Your task to perform on an android device: open app "Chime – Mobile Banking" (install if not already installed) and enter user name: "bullfrog@inbox.com" and password: "breaker" Image 0: 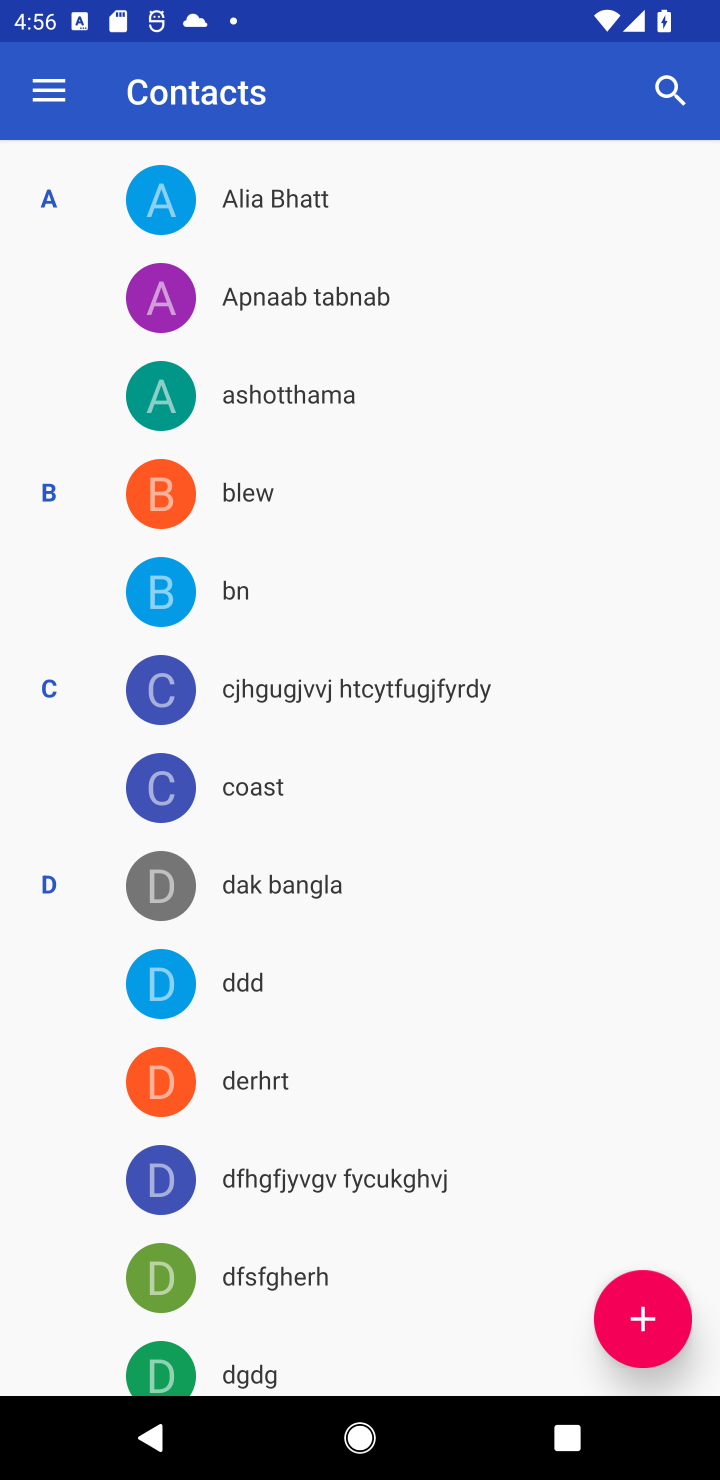
Step 0: press home button
Your task to perform on an android device: open app "Chime – Mobile Banking" (install if not already installed) and enter user name: "bullfrog@inbox.com" and password: "breaker" Image 1: 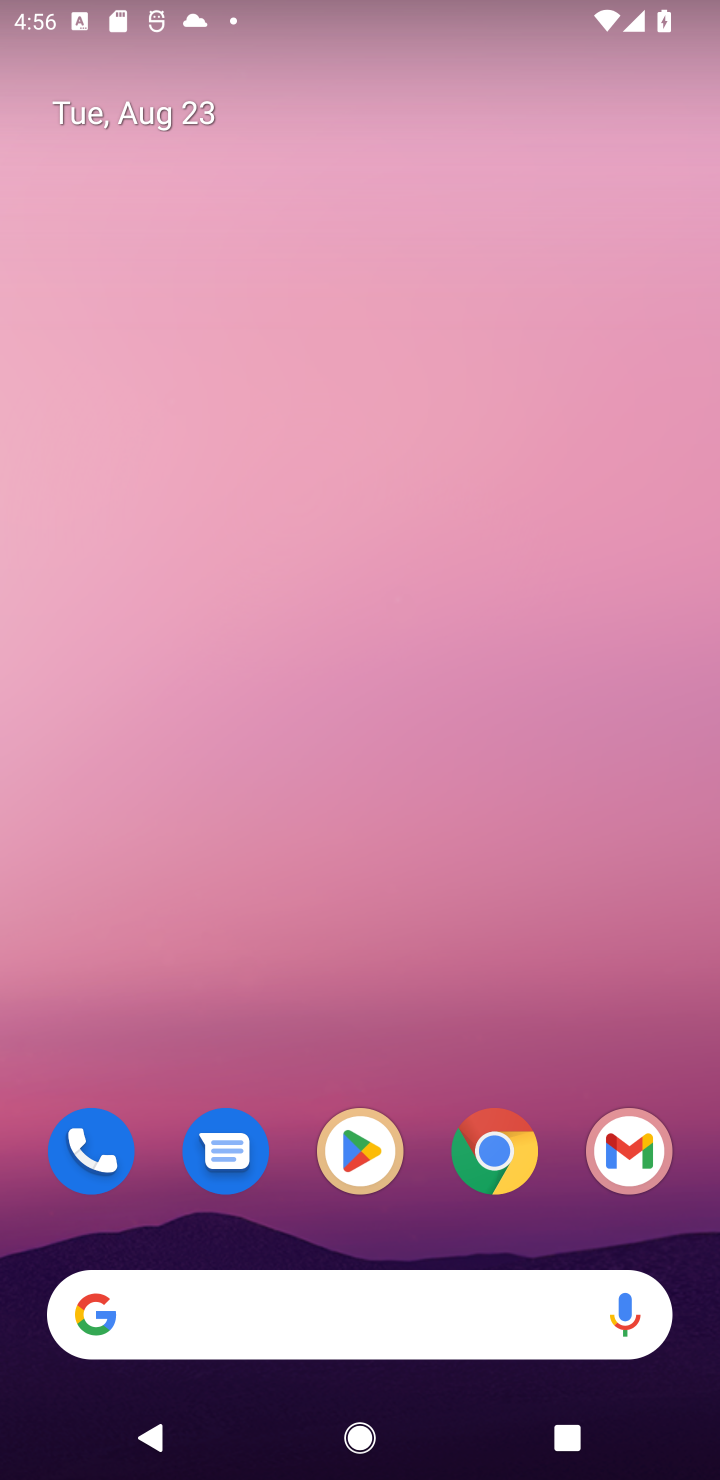
Step 1: click (348, 1150)
Your task to perform on an android device: open app "Chime – Mobile Banking" (install if not already installed) and enter user name: "bullfrog@inbox.com" and password: "breaker" Image 2: 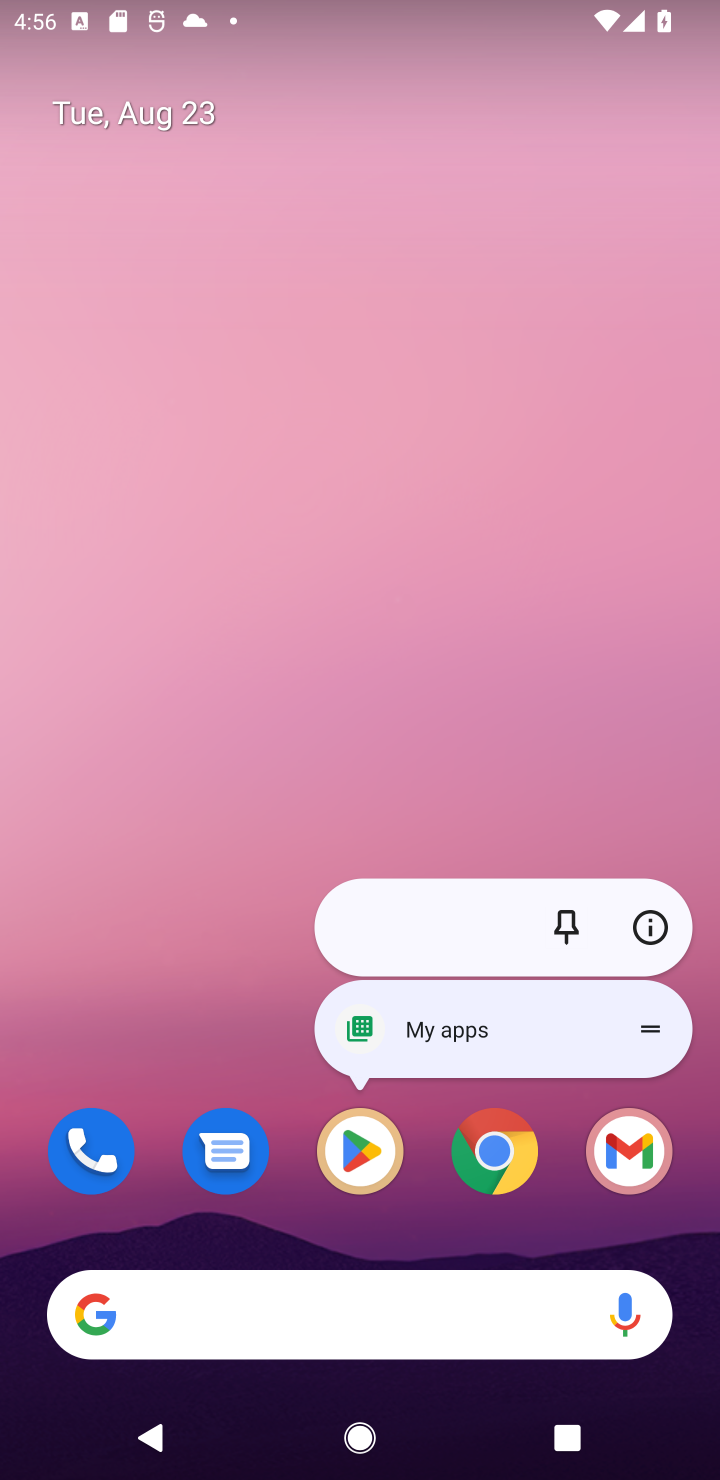
Step 2: click (348, 1167)
Your task to perform on an android device: open app "Chime – Mobile Banking" (install if not already installed) and enter user name: "bullfrog@inbox.com" and password: "breaker" Image 3: 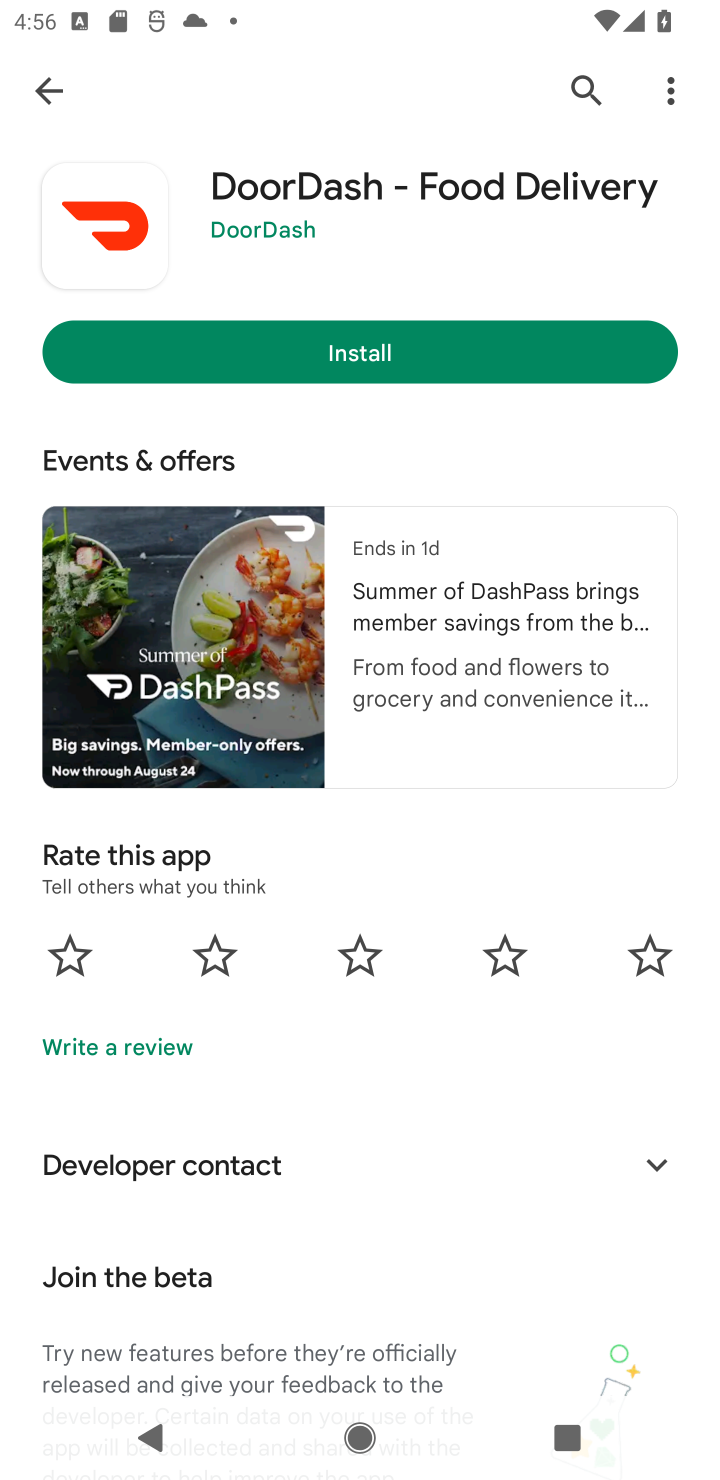
Step 3: click (581, 83)
Your task to perform on an android device: open app "Chime – Mobile Banking" (install if not already installed) and enter user name: "bullfrog@inbox.com" and password: "breaker" Image 4: 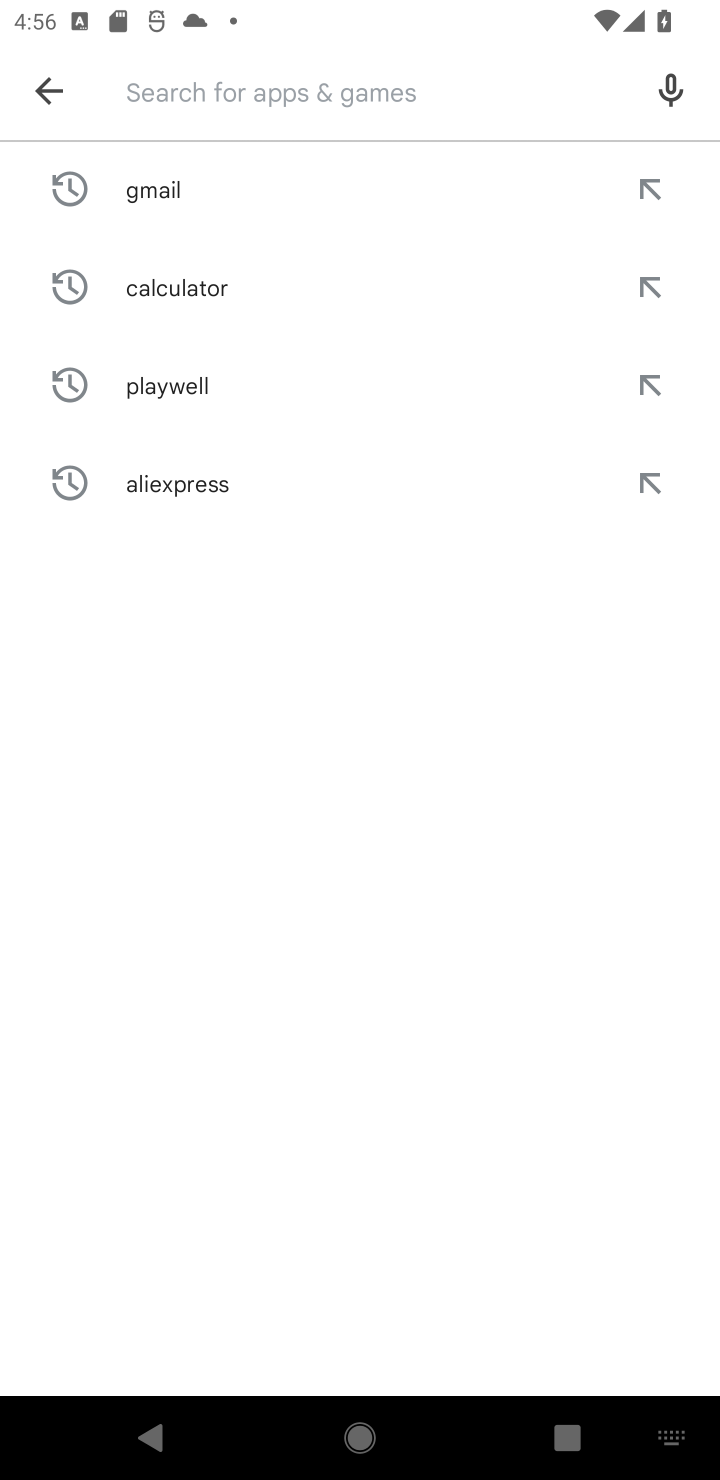
Step 4: type "Chime Mobile Banking"
Your task to perform on an android device: open app "Chime – Mobile Banking" (install if not already installed) and enter user name: "bullfrog@inbox.com" and password: "breaker" Image 5: 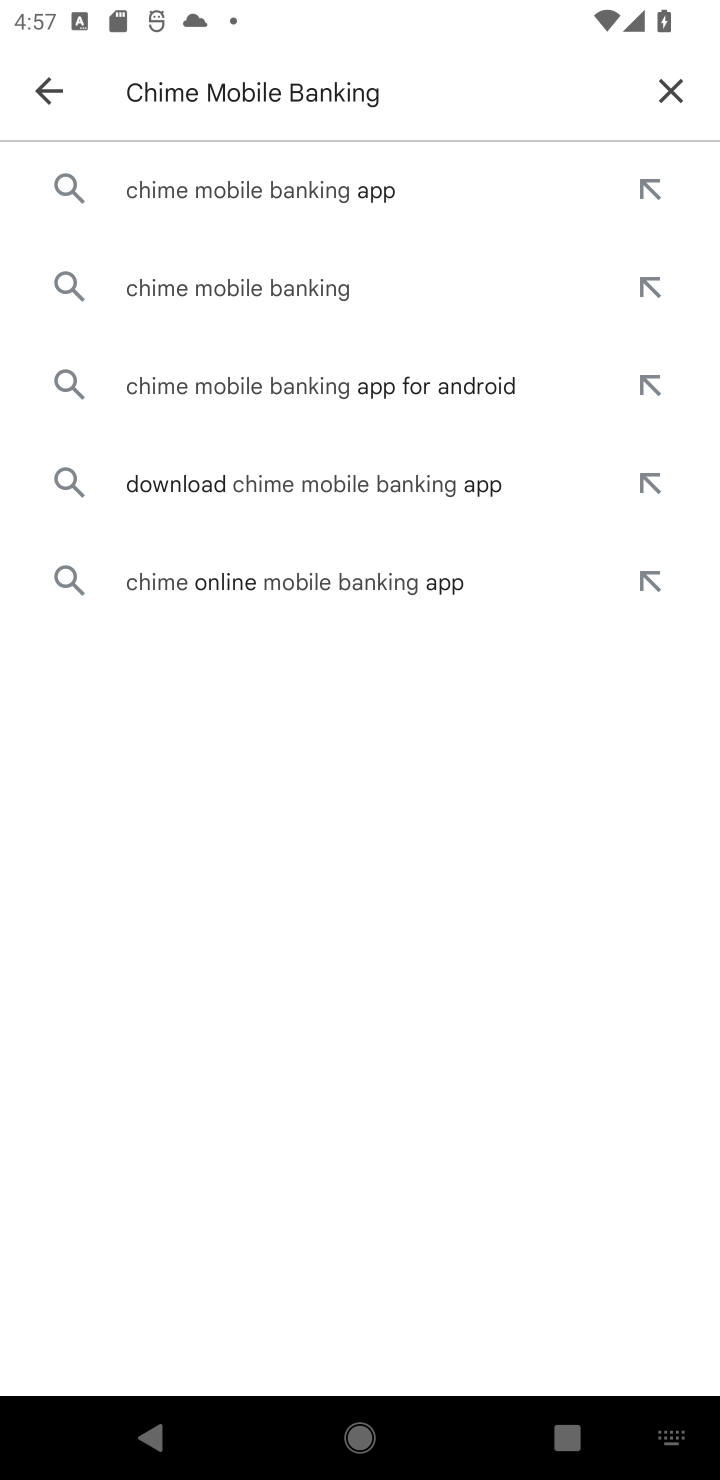
Step 5: click (319, 191)
Your task to perform on an android device: open app "Chime – Mobile Banking" (install if not already installed) and enter user name: "bullfrog@inbox.com" and password: "breaker" Image 6: 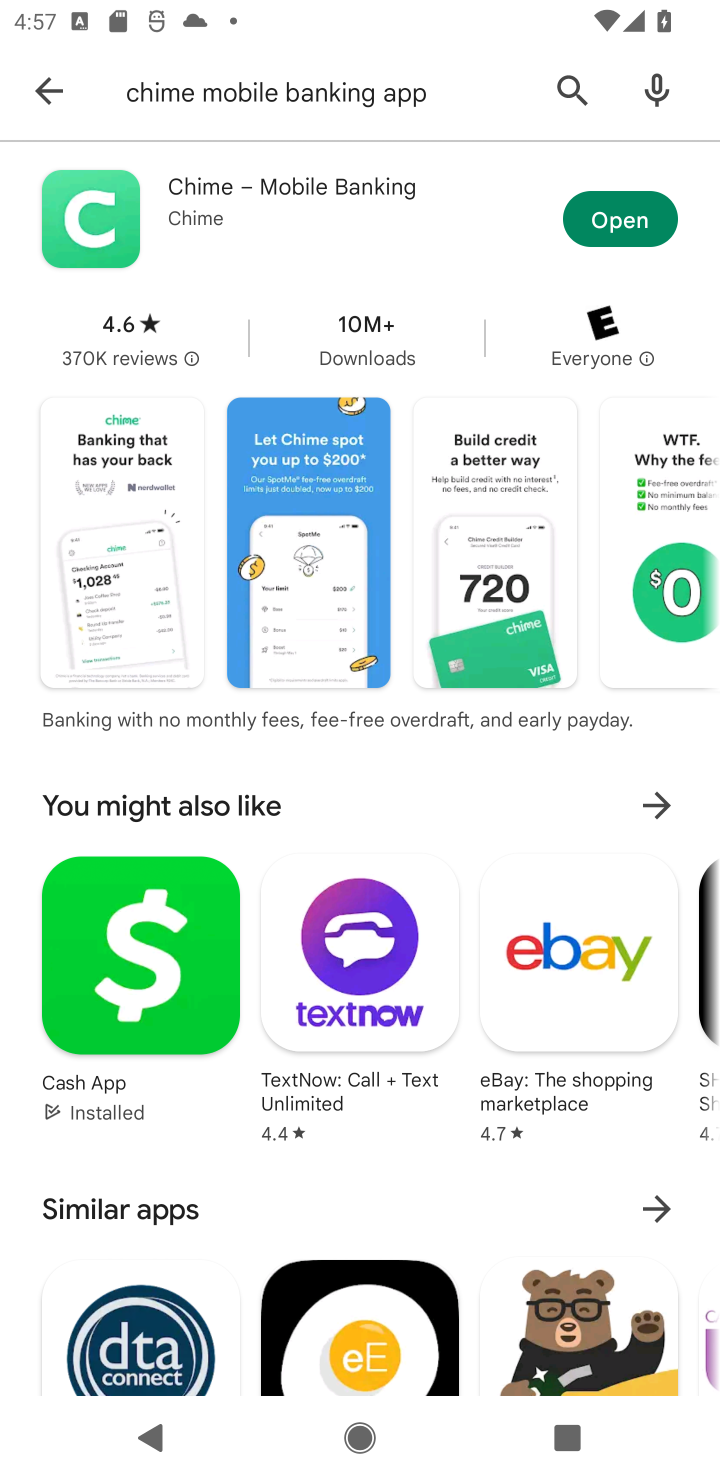
Step 6: click (602, 224)
Your task to perform on an android device: open app "Chime – Mobile Banking" (install if not already installed) and enter user name: "bullfrog@inbox.com" and password: "breaker" Image 7: 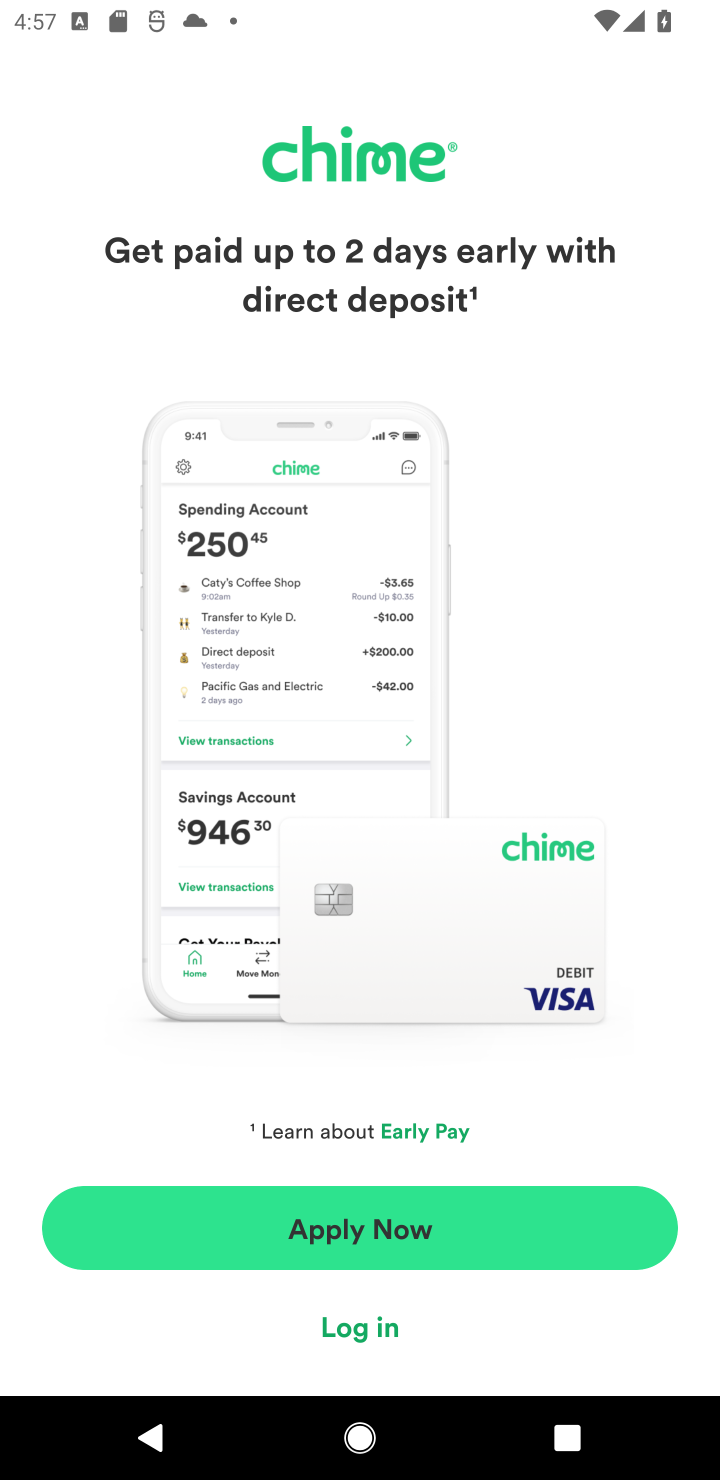
Step 7: click (369, 1323)
Your task to perform on an android device: open app "Chime – Mobile Banking" (install if not already installed) and enter user name: "bullfrog@inbox.com" and password: "breaker" Image 8: 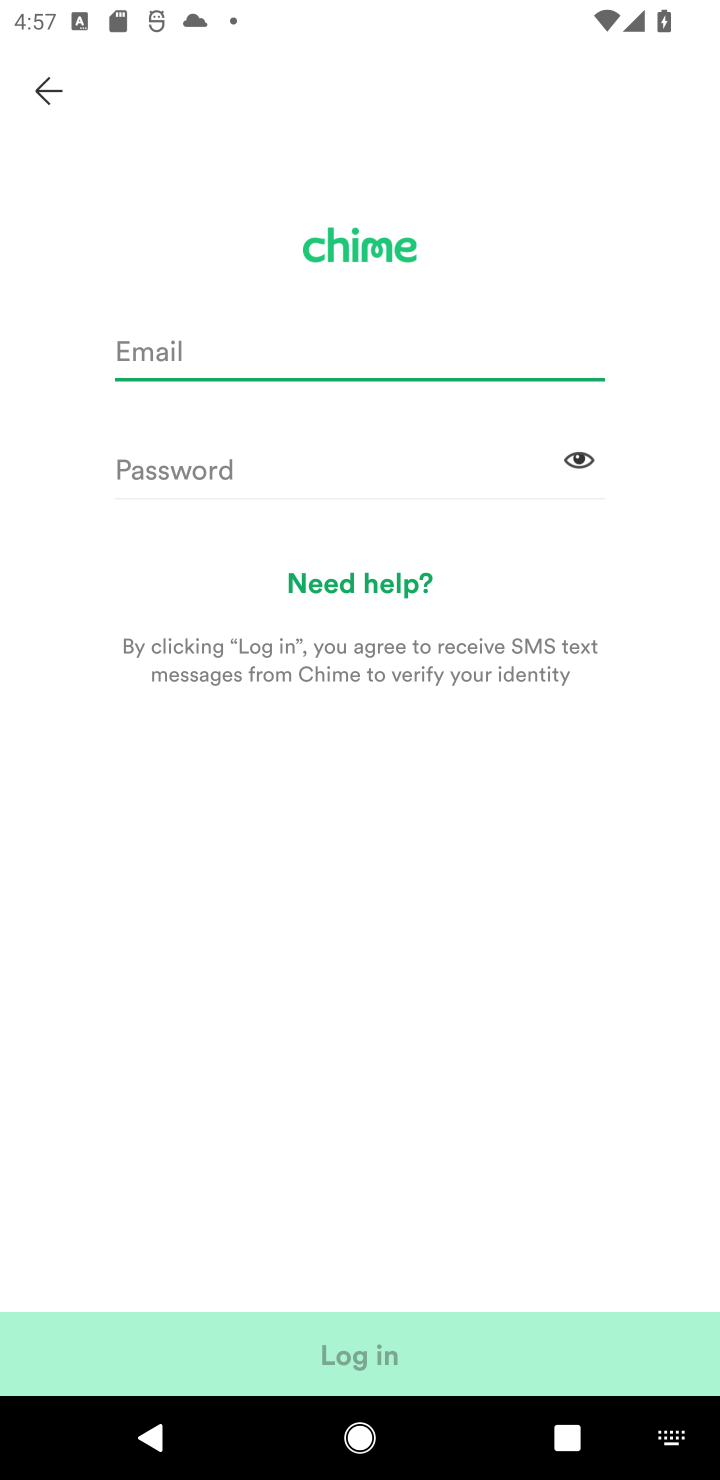
Step 8: type "bullfrog@inbox.com"
Your task to perform on an android device: open app "Chime – Mobile Banking" (install if not already installed) and enter user name: "bullfrog@inbox.com" and password: "breaker" Image 9: 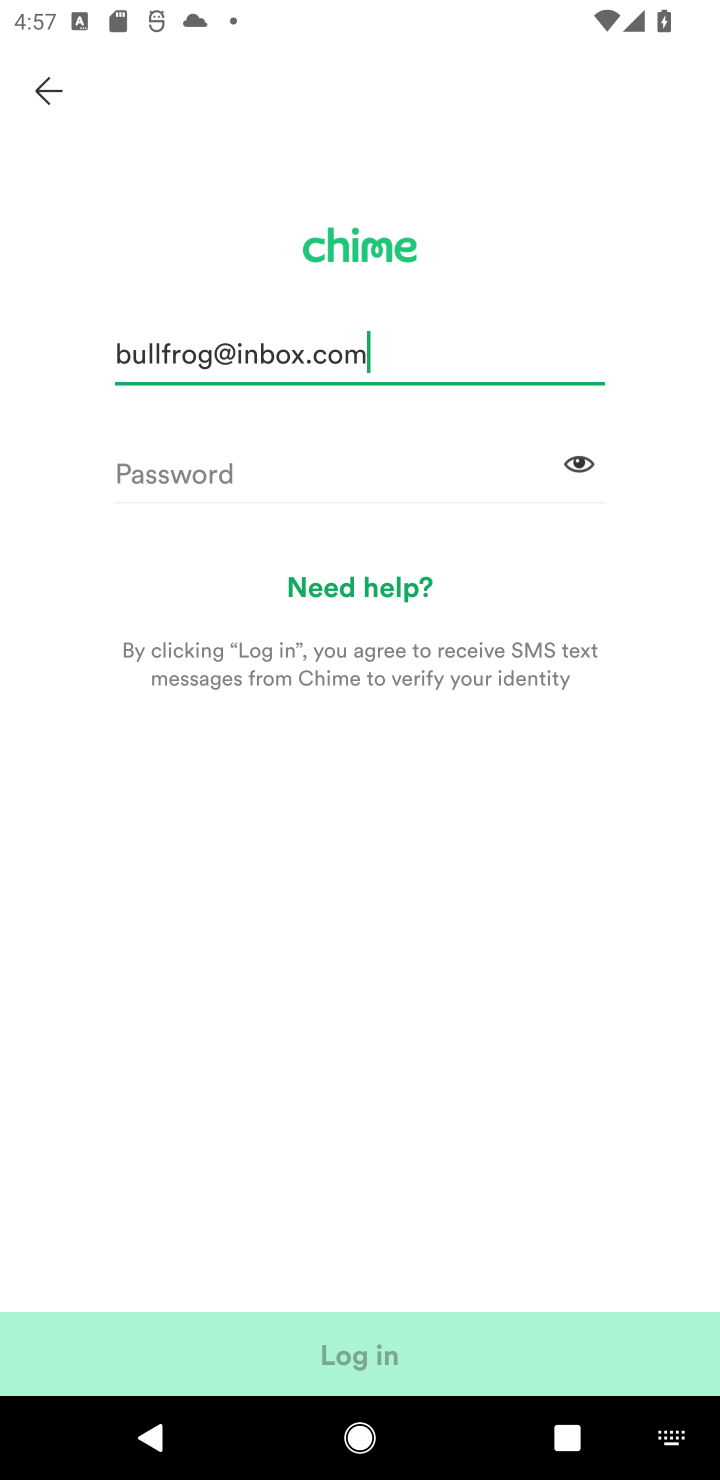
Step 9: click (171, 453)
Your task to perform on an android device: open app "Chime – Mobile Banking" (install if not already installed) and enter user name: "bullfrog@inbox.com" and password: "breaker" Image 10: 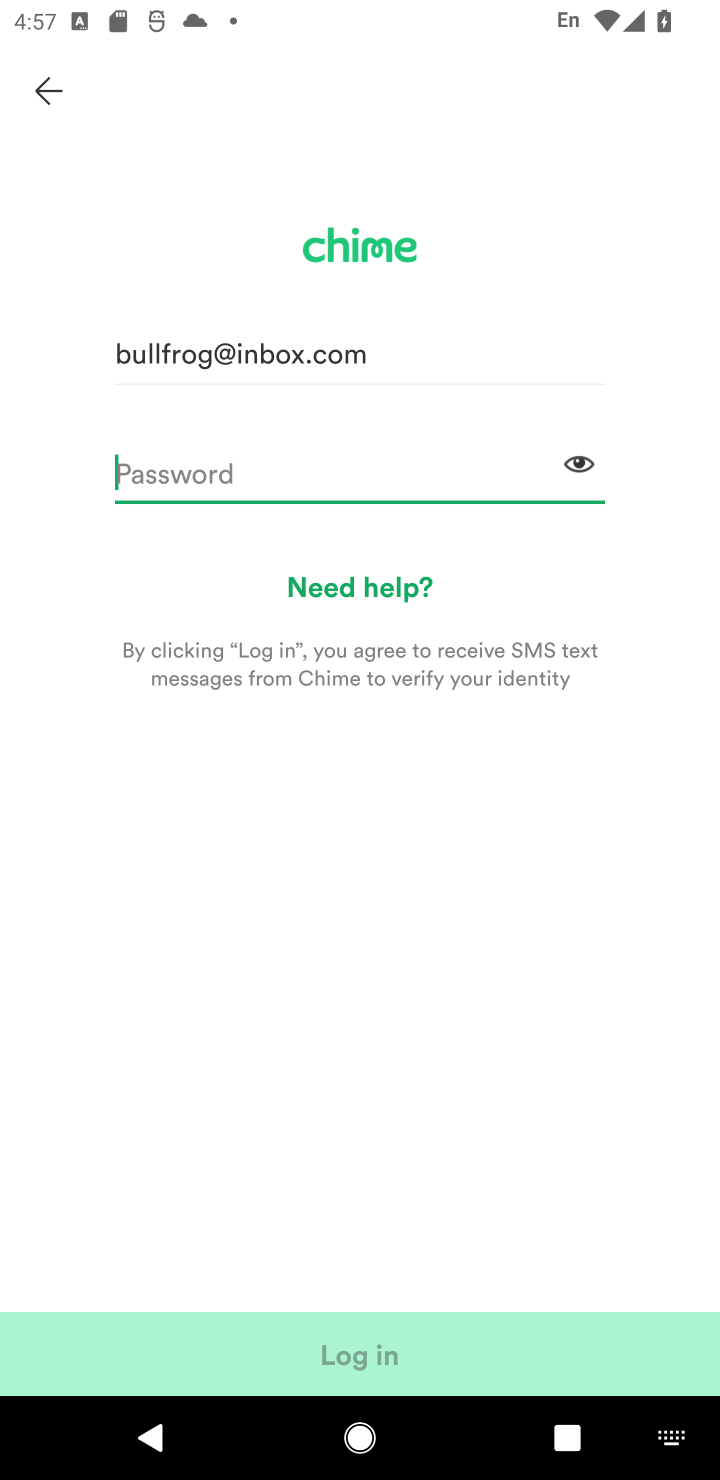
Step 10: type "breaker"
Your task to perform on an android device: open app "Chime – Mobile Banking" (install if not already installed) and enter user name: "bullfrog@inbox.com" and password: "breaker" Image 11: 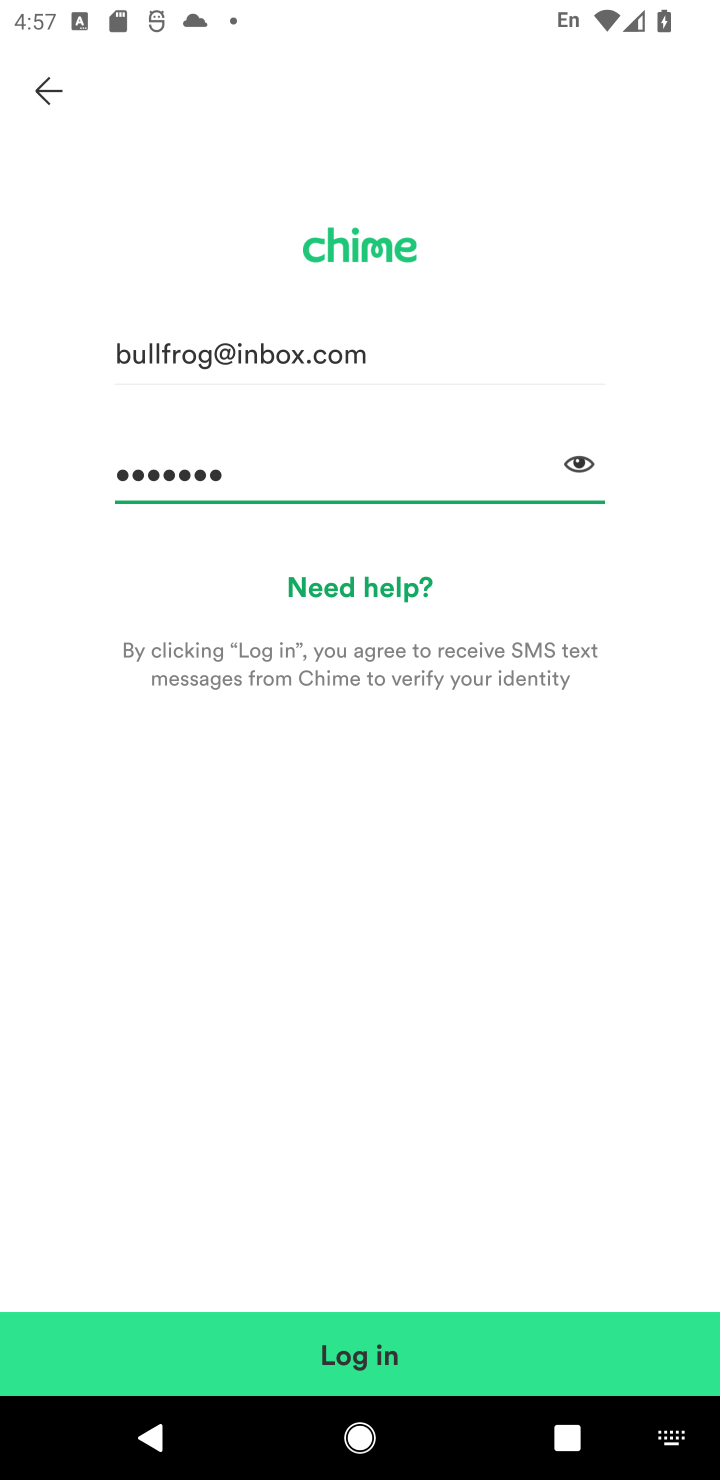
Step 11: task complete